Your task to perform on an android device: Open the calendar and show me this week's events Image 0: 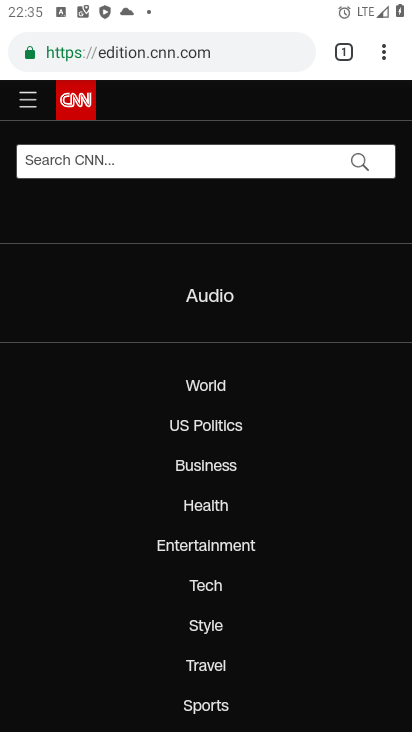
Step 0: press home button
Your task to perform on an android device: Open the calendar and show me this week's events Image 1: 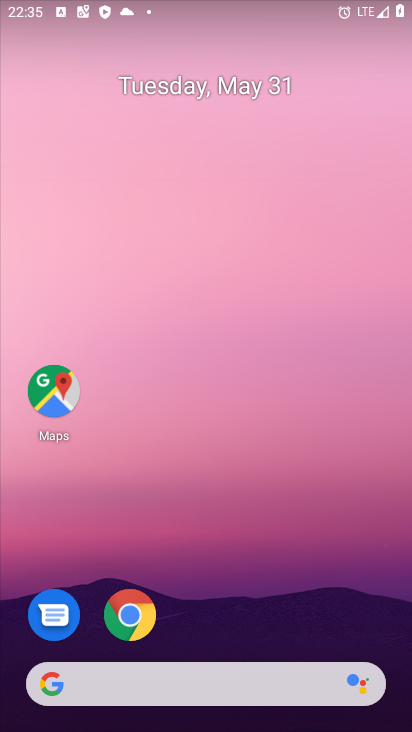
Step 1: drag from (368, 632) to (334, 44)
Your task to perform on an android device: Open the calendar and show me this week's events Image 2: 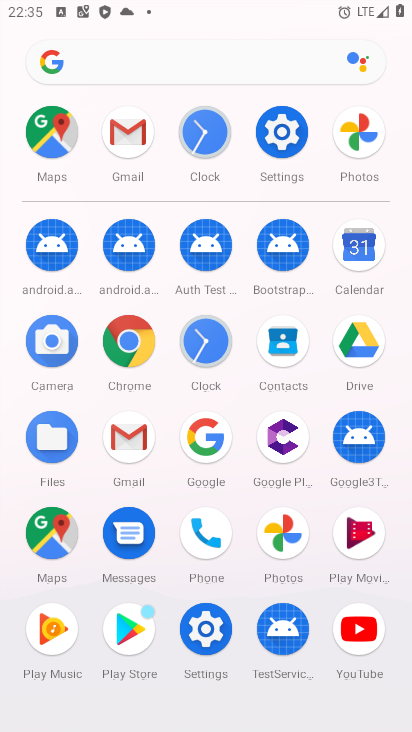
Step 2: click (358, 247)
Your task to perform on an android device: Open the calendar and show me this week's events Image 3: 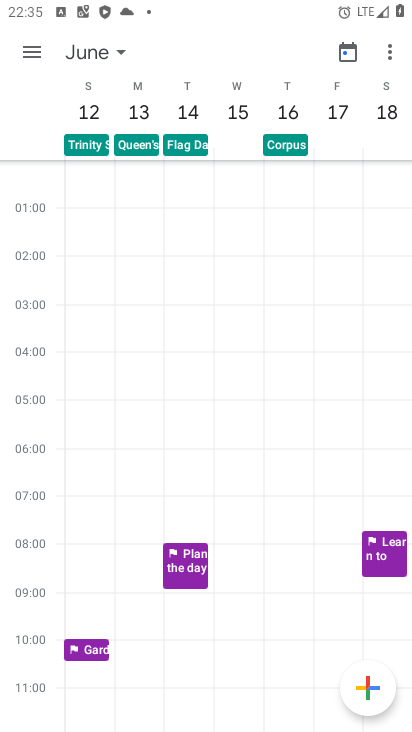
Step 3: click (121, 59)
Your task to perform on an android device: Open the calendar and show me this week's events Image 4: 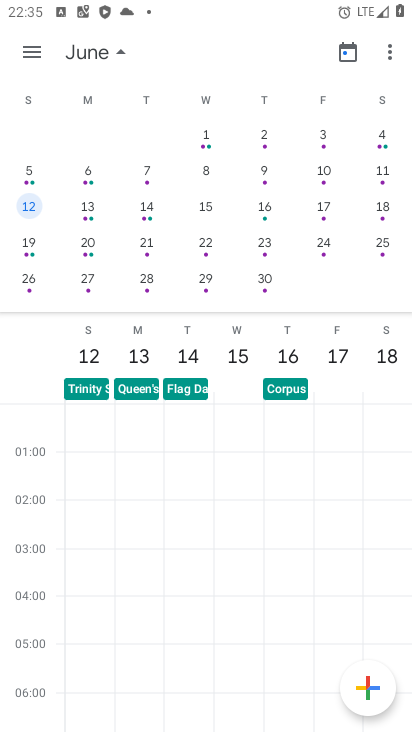
Step 4: drag from (32, 248) to (347, 242)
Your task to perform on an android device: Open the calendar and show me this week's events Image 5: 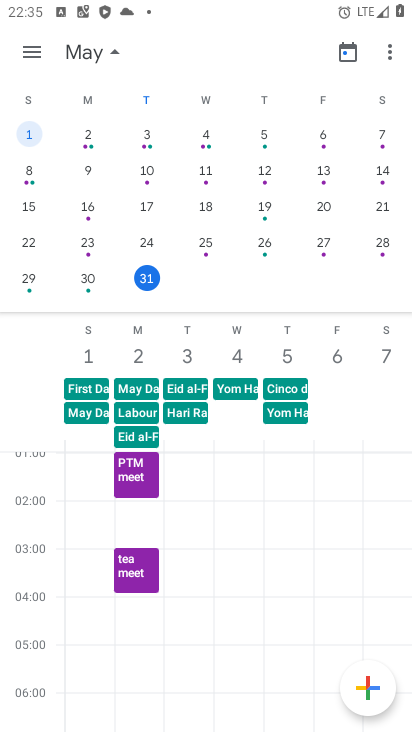
Step 5: click (150, 275)
Your task to perform on an android device: Open the calendar and show me this week's events Image 6: 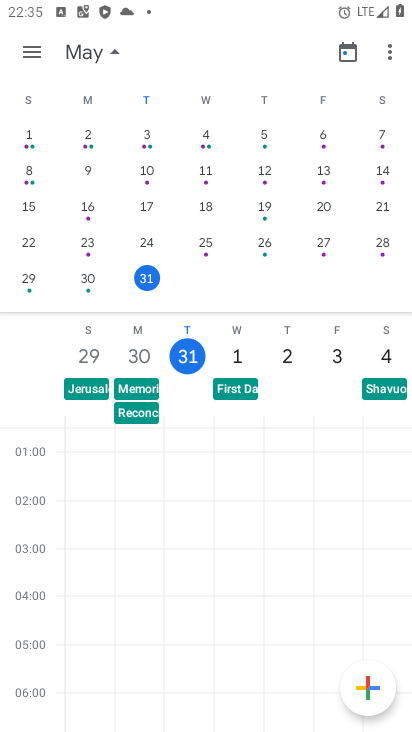
Step 6: task complete